Your task to perform on an android device: Do I have any events this weekend? Image 0: 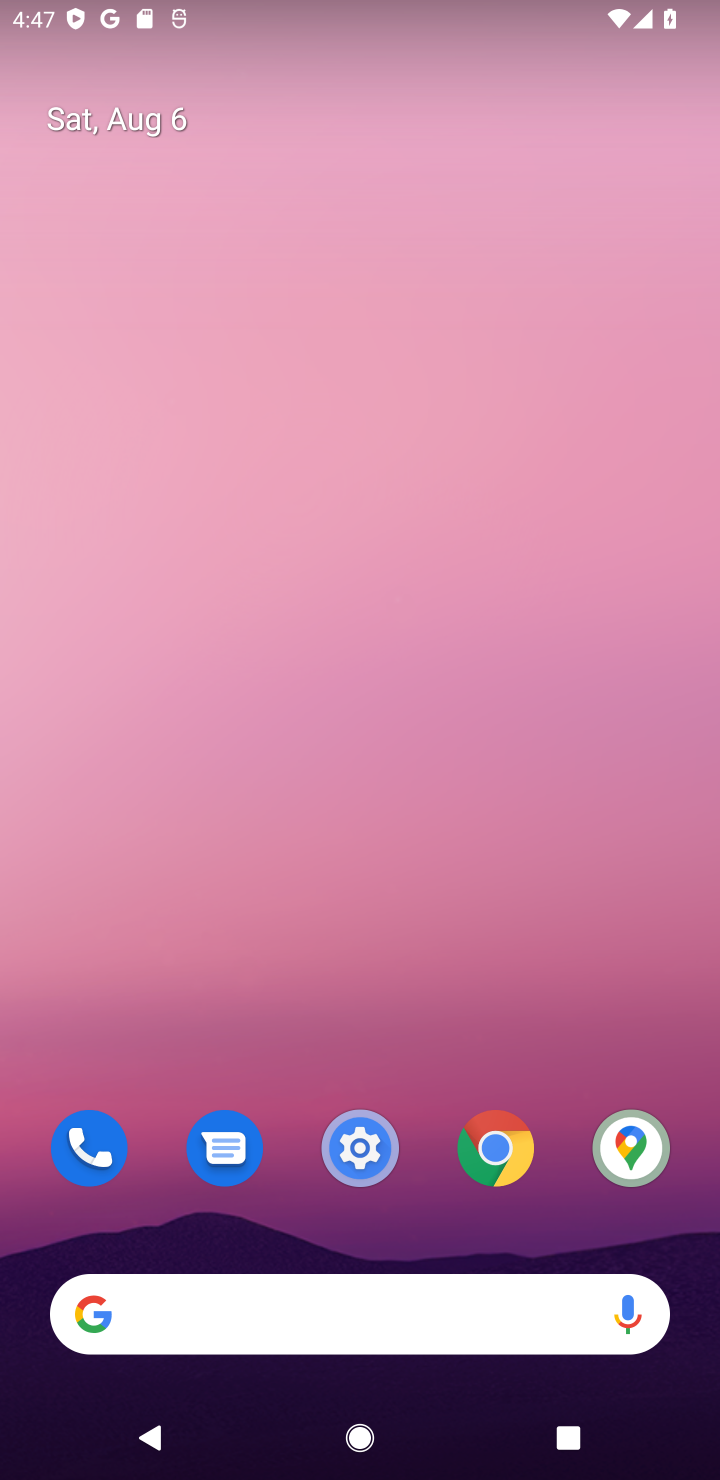
Step 0: drag from (424, 1240) to (614, 70)
Your task to perform on an android device: Do I have any events this weekend? Image 1: 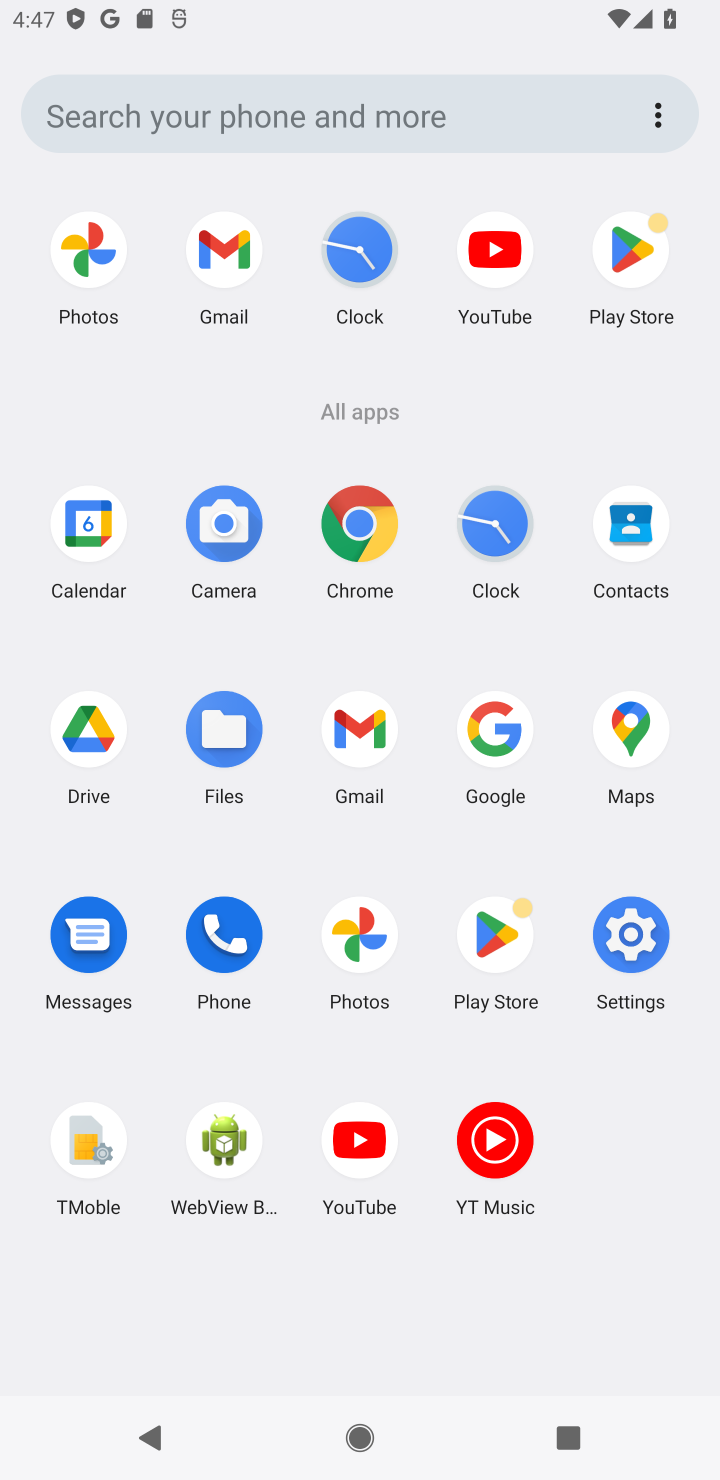
Step 1: click (102, 527)
Your task to perform on an android device: Do I have any events this weekend? Image 2: 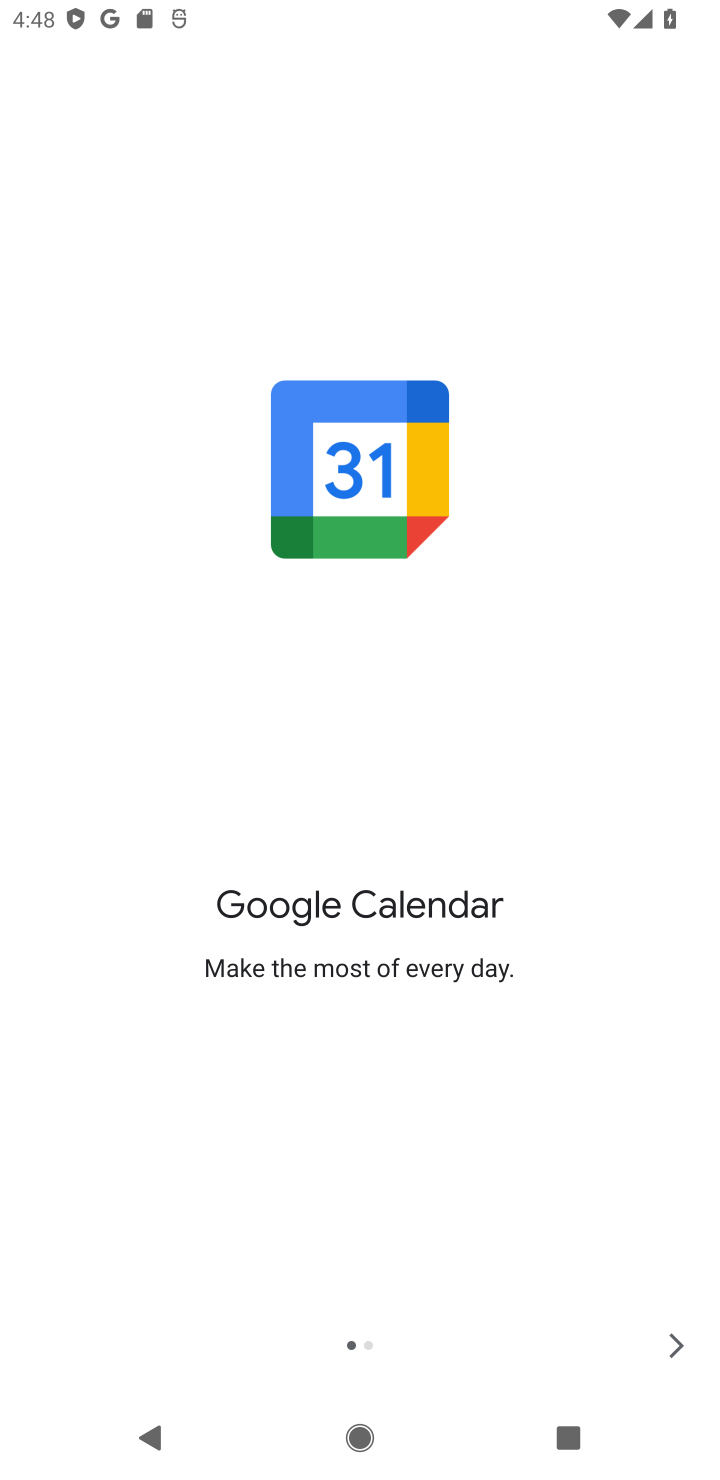
Step 2: click (676, 1343)
Your task to perform on an android device: Do I have any events this weekend? Image 3: 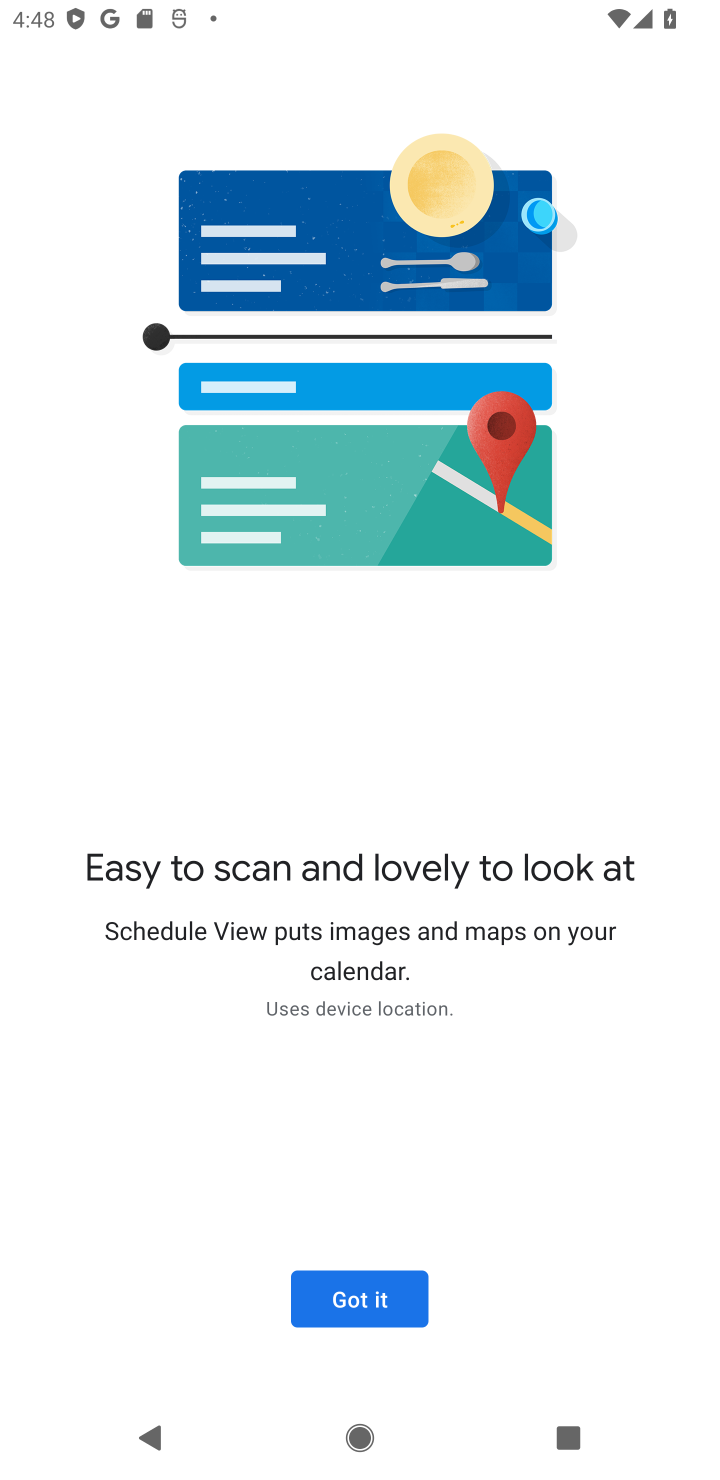
Step 3: click (364, 1314)
Your task to perform on an android device: Do I have any events this weekend? Image 4: 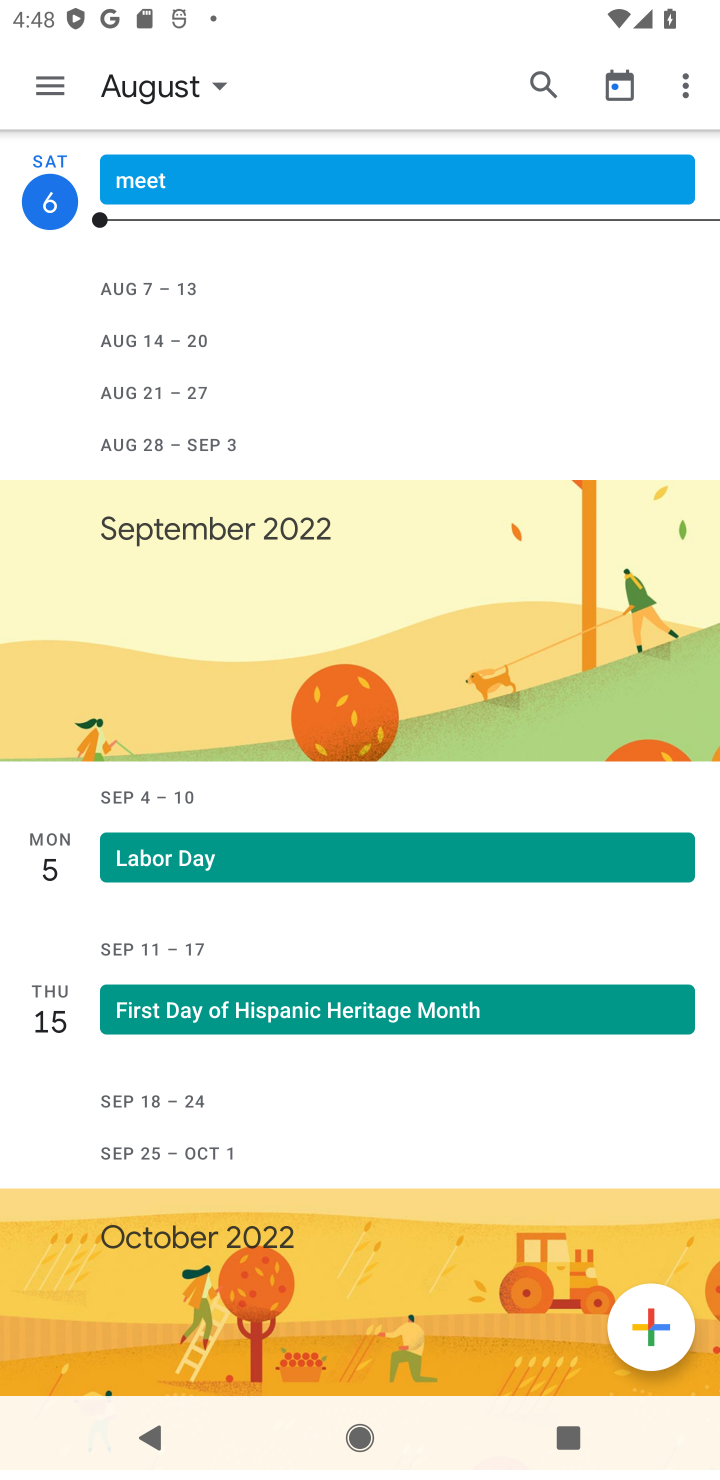
Step 4: click (38, 71)
Your task to perform on an android device: Do I have any events this weekend? Image 5: 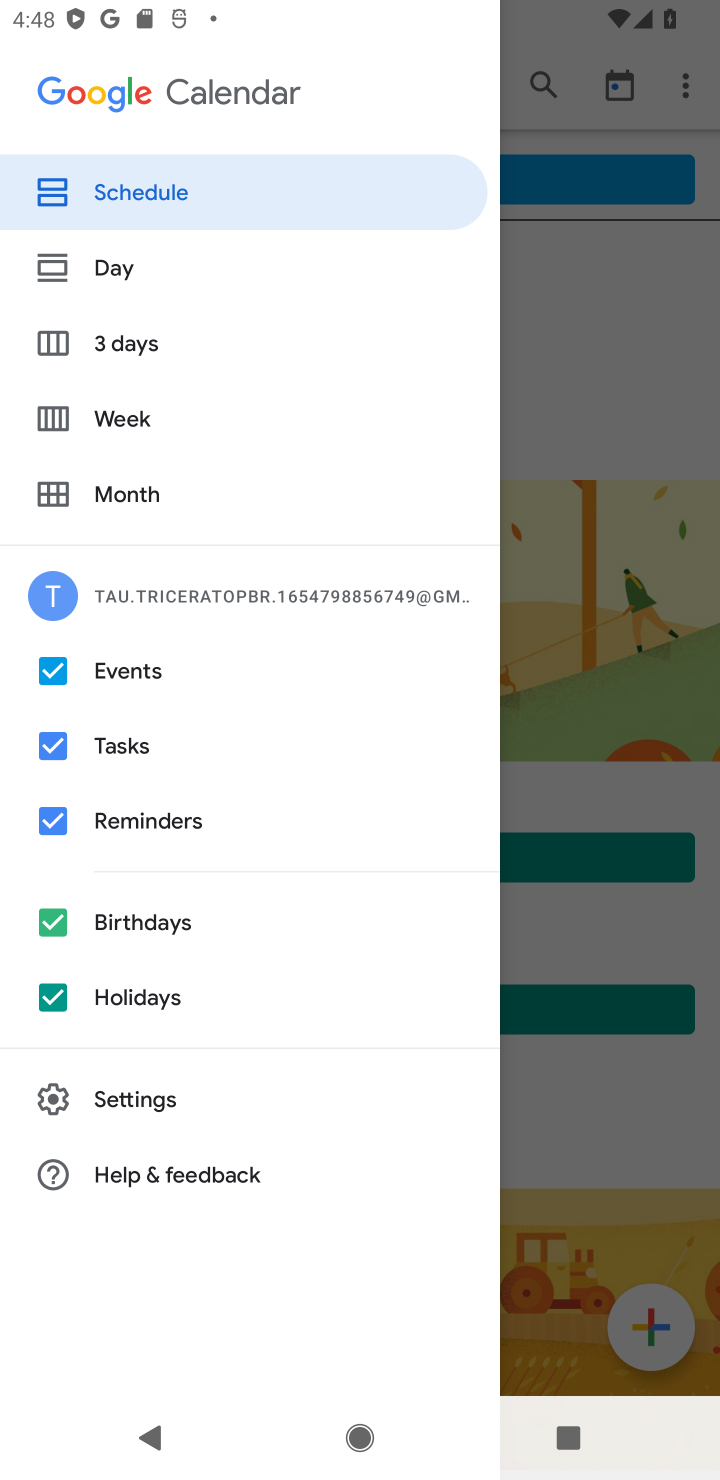
Step 5: click (122, 434)
Your task to perform on an android device: Do I have any events this weekend? Image 6: 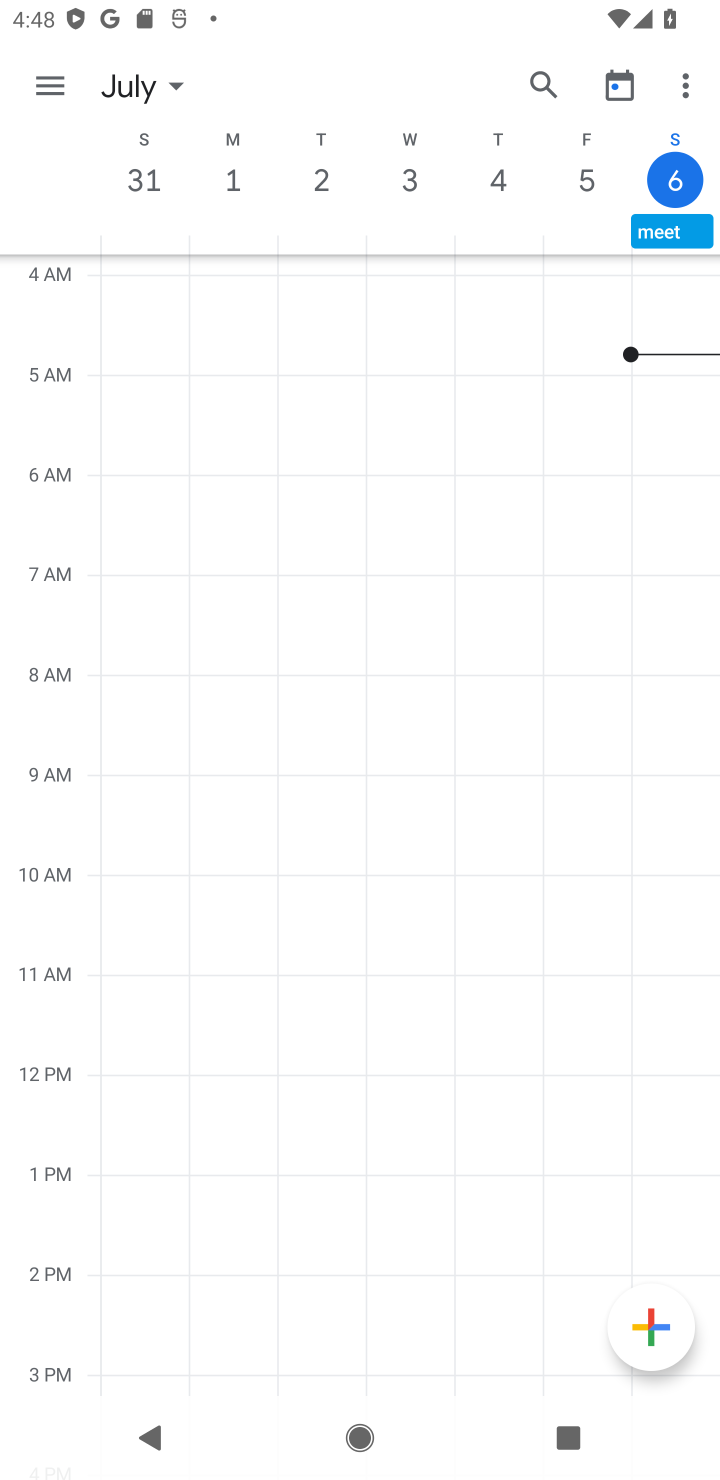
Step 6: task complete